Your task to perform on an android device: choose inbox layout in the gmail app Image 0: 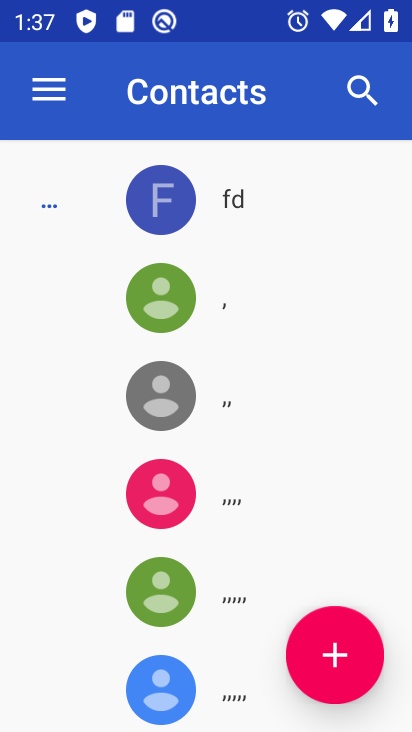
Step 0: press home button
Your task to perform on an android device: choose inbox layout in the gmail app Image 1: 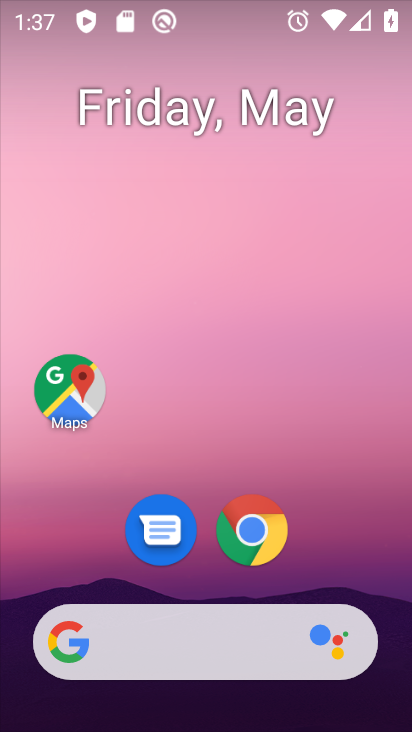
Step 1: drag from (316, 556) to (388, 9)
Your task to perform on an android device: choose inbox layout in the gmail app Image 2: 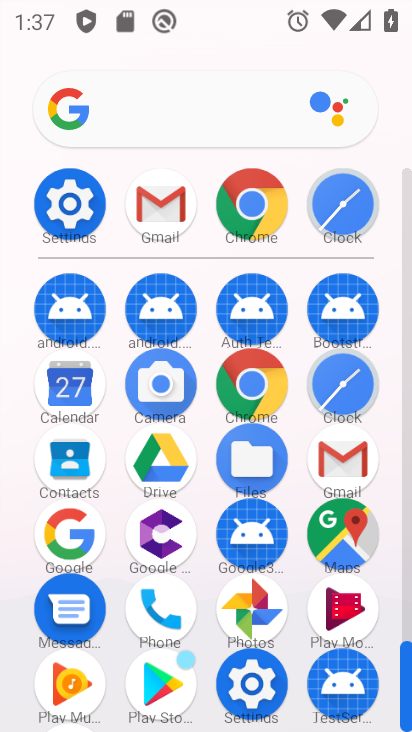
Step 2: click (351, 454)
Your task to perform on an android device: choose inbox layout in the gmail app Image 3: 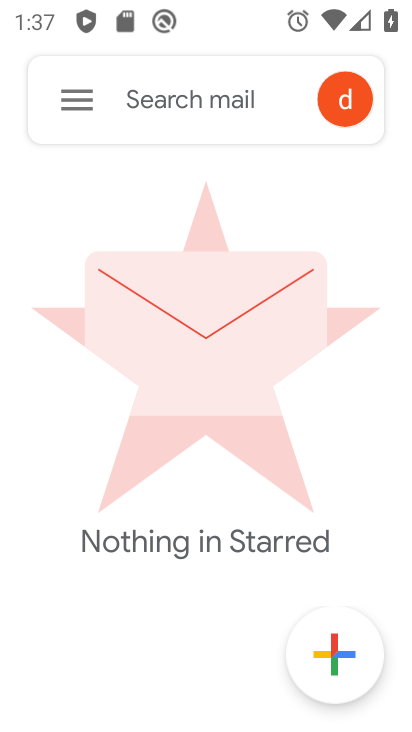
Step 3: click (76, 97)
Your task to perform on an android device: choose inbox layout in the gmail app Image 4: 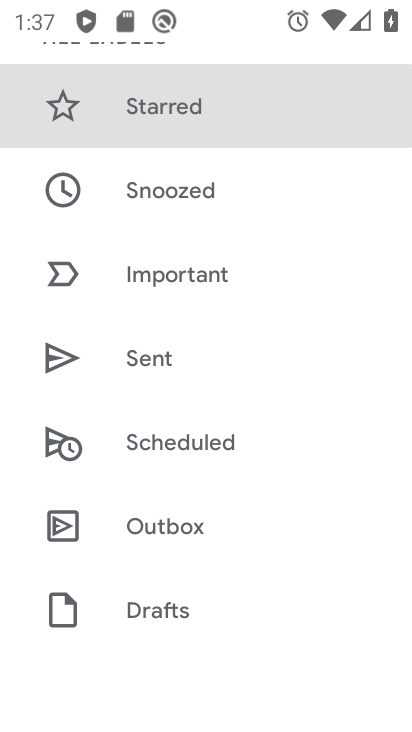
Step 4: drag from (150, 597) to (217, 95)
Your task to perform on an android device: choose inbox layout in the gmail app Image 5: 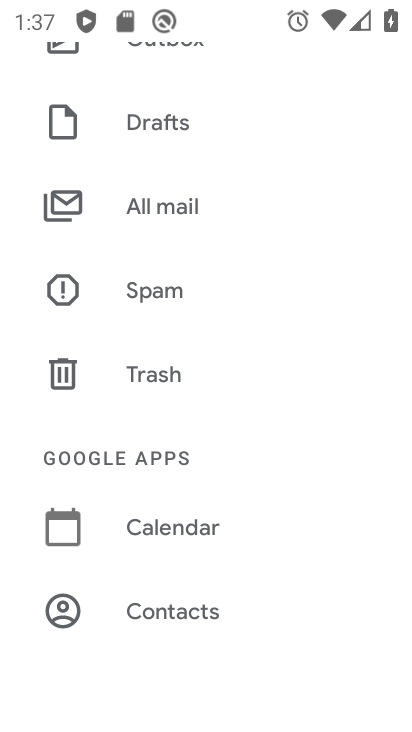
Step 5: drag from (167, 605) to (195, 170)
Your task to perform on an android device: choose inbox layout in the gmail app Image 6: 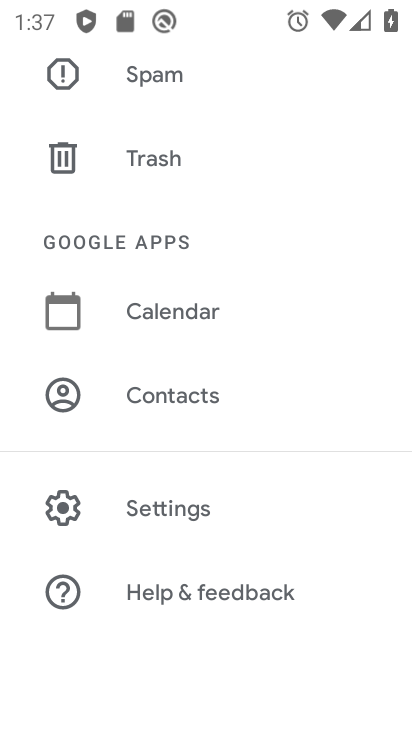
Step 6: click (162, 512)
Your task to perform on an android device: choose inbox layout in the gmail app Image 7: 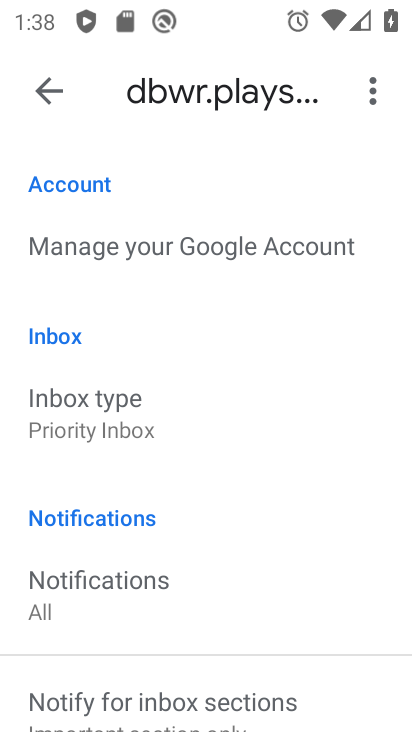
Step 7: drag from (218, 633) to (267, 653)
Your task to perform on an android device: choose inbox layout in the gmail app Image 8: 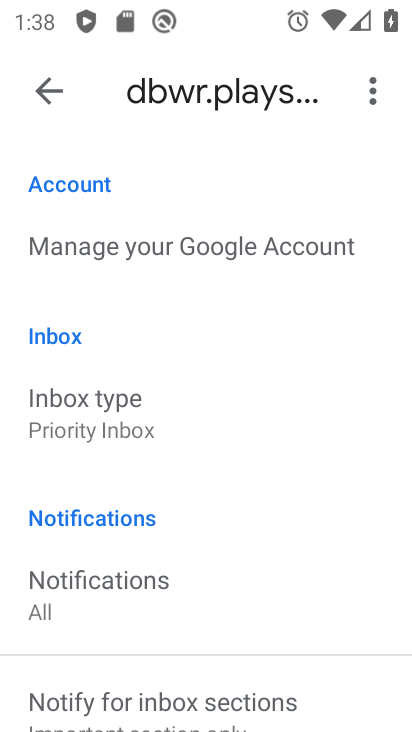
Step 8: click (60, 431)
Your task to perform on an android device: choose inbox layout in the gmail app Image 9: 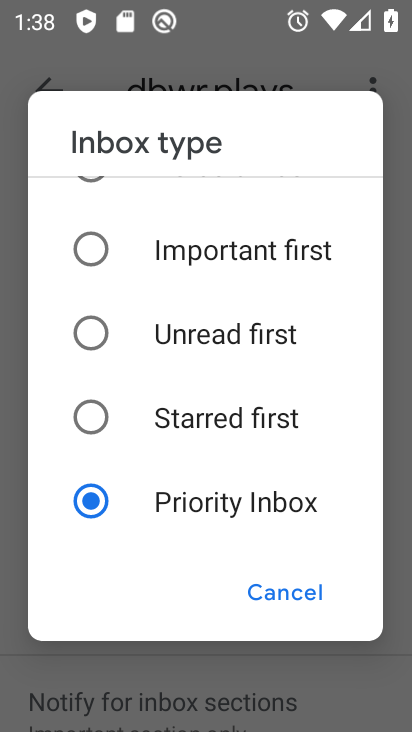
Step 9: click (249, 258)
Your task to perform on an android device: choose inbox layout in the gmail app Image 10: 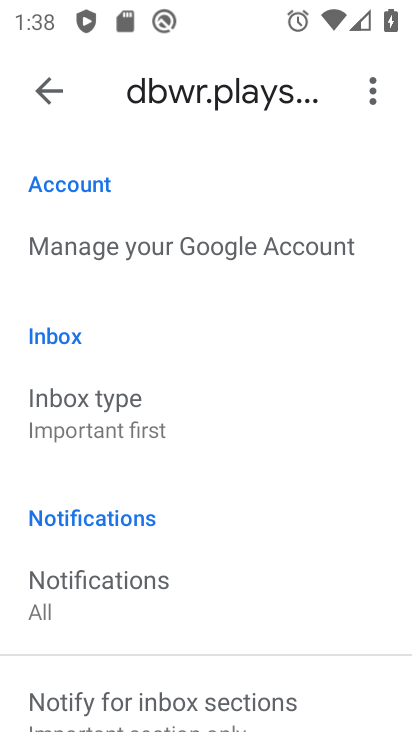
Step 10: task complete